Your task to perform on an android device: What's the weather going to be tomorrow? Image 0: 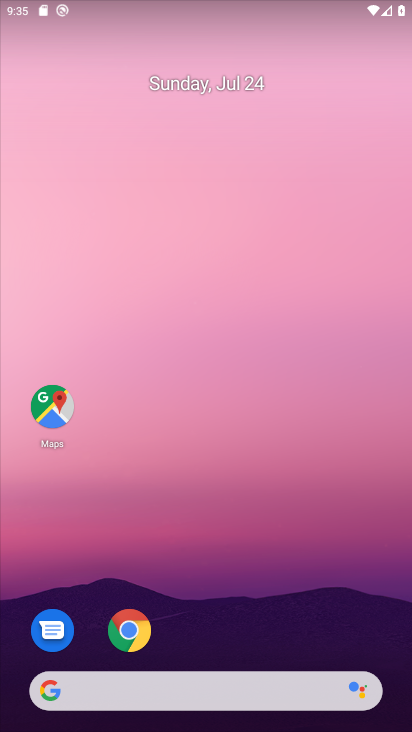
Step 0: drag from (221, 602) to (239, 220)
Your task to perform on an android device: What's the weather going to be tomorrow? Image 1: 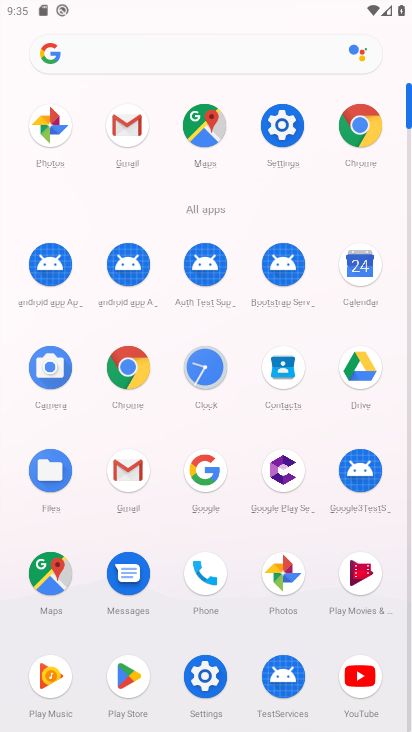
Step 1: click (365, 126)
Your task to perform on an android device: What's the weather going to be tomorrow? Image 2: 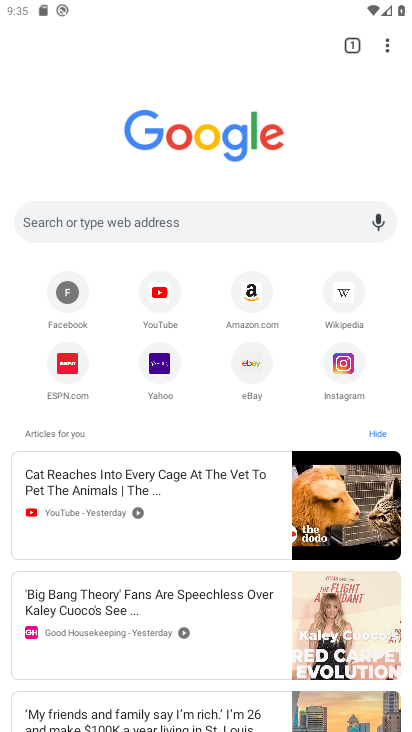
Step 2: click (224, 220)
Your task to perform on an android device: What's the weather going to be tomorrow? Image 3: 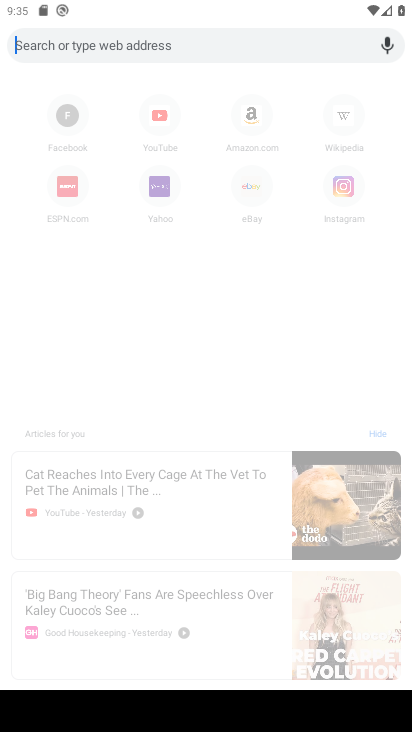
Step 3: type "What's the weather going to be tomorrow "
Your task to perform on an android device: What's the weather going to be tomorrow? Image 4: 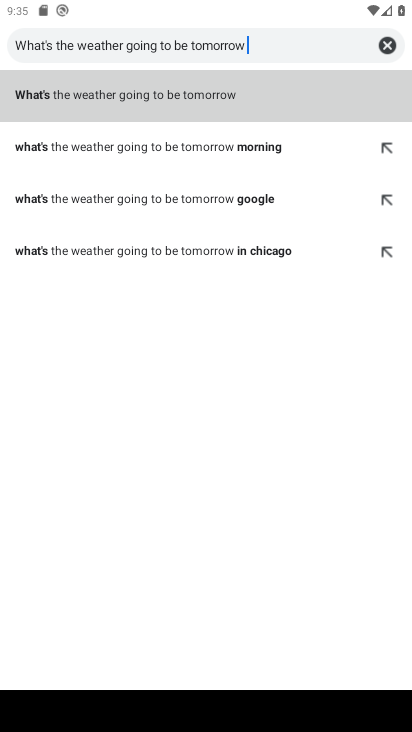
Step 4: click (115, 88)
Your task to perform on an android device: What's the weather going to be tomorrow? Image 5: 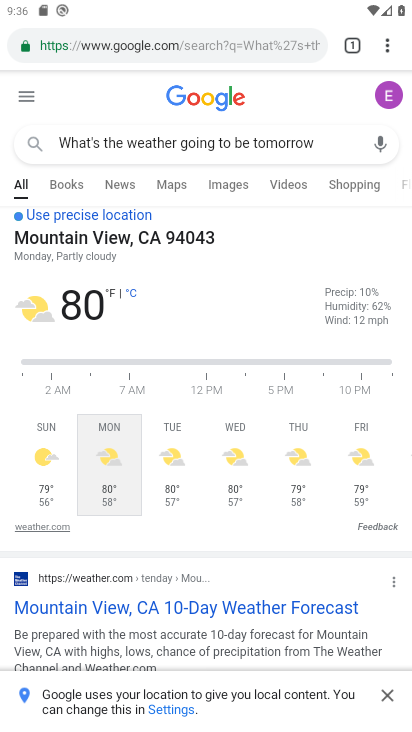
Step 5: task complete